Your task to perform on an android device: turn on airplane mode Image 0: 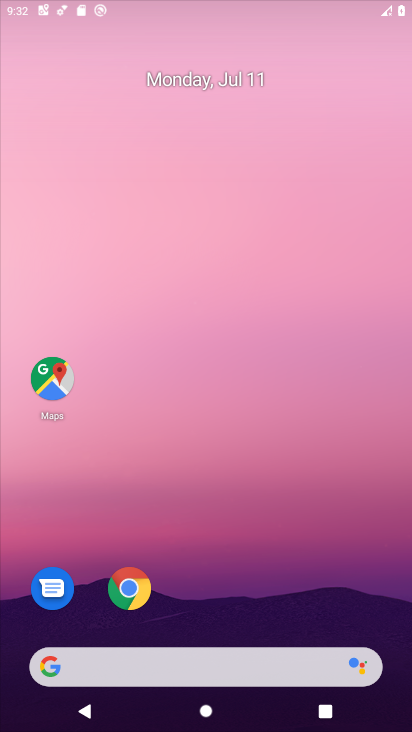
Step 0: drag from (248, 625) to (236, 214)
Your task to perform on an android device: turn on airplane mode Image 1: 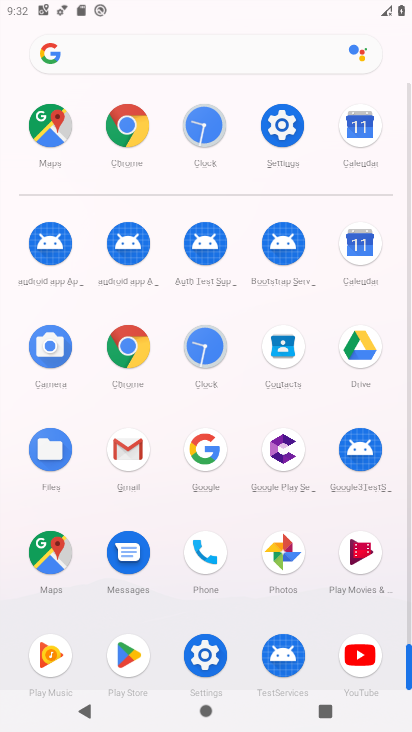
Step 1: click (270, 114)
Your task to perform on an android device: turn on airplane mode Image 2: 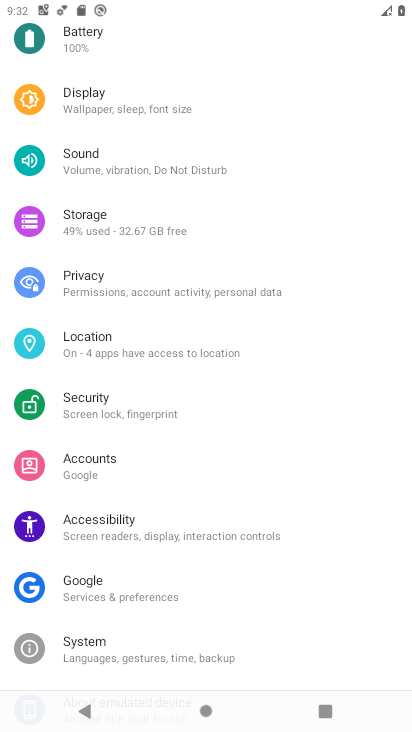
Step 2: drag from (152, 81) to (186, 625)
Your task to perform on an android device: turn on airplane mode Image 3: 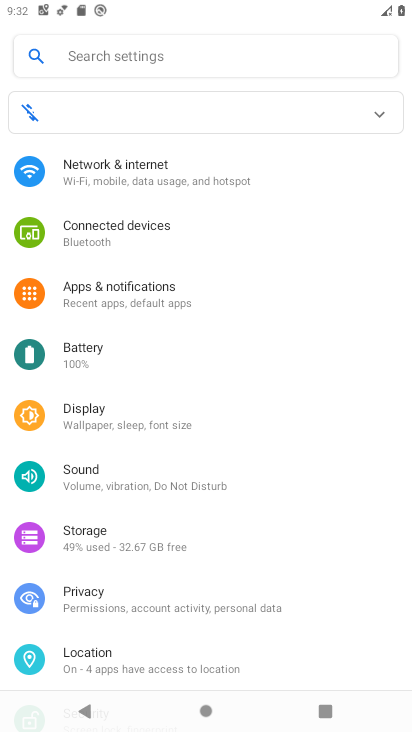
Step 3: click (172, 159)
Your task to perform on an android device: turn on airplane mode Image 4: 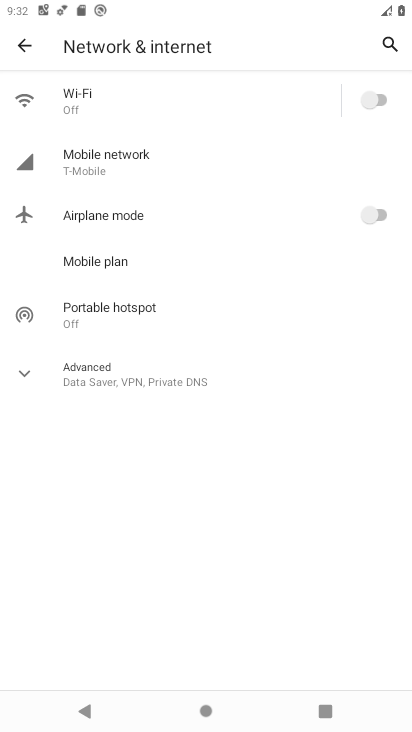
Step 4: click (381, 206)
Your task to perform on an android device: turn on airplane mode Image 5: 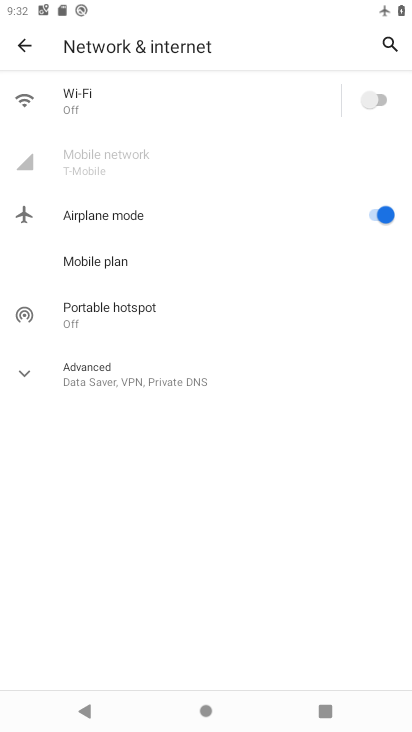
Step 5: task complete